Your task to perform on an android device: check the backup settings in the google photos Image 0: 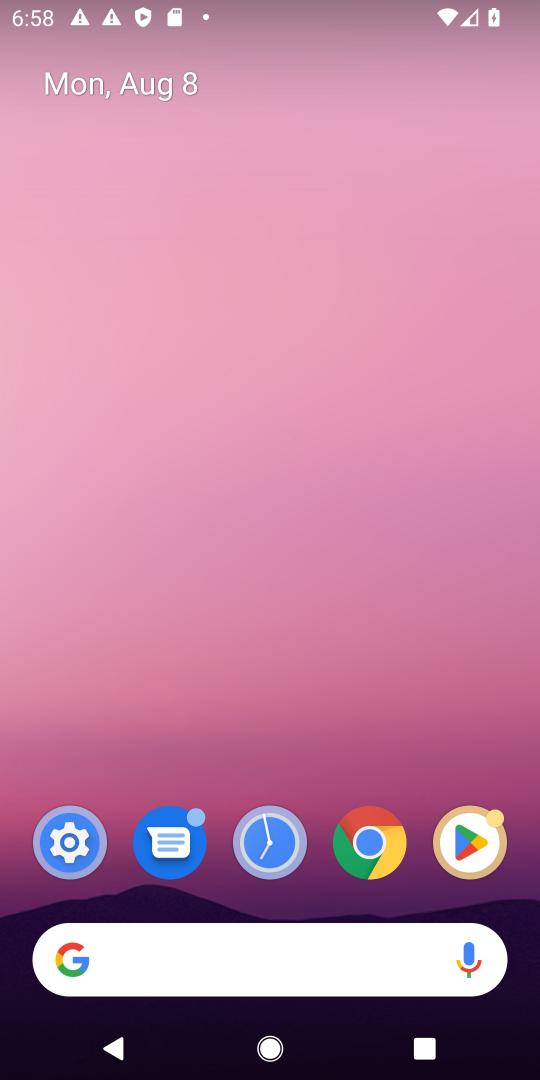
Step 0: drag from (528, 851) to (449, 120)
Your task to perform on an android device: check the backup settings in the google photos Image 1: 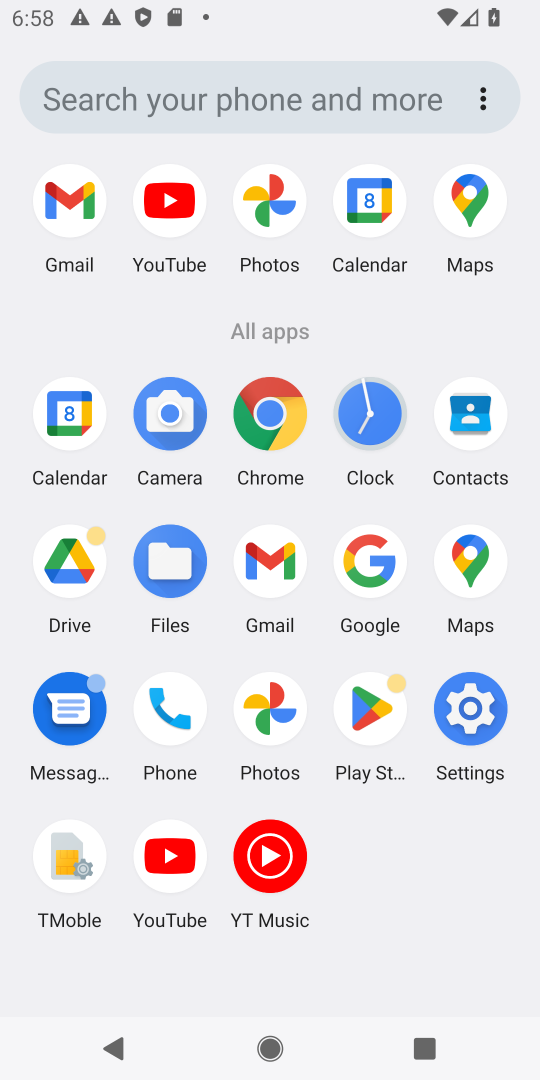
Step 1: click (256, 693)
Your task to perform on an android device: check the backup settings in the google photos Image 2: 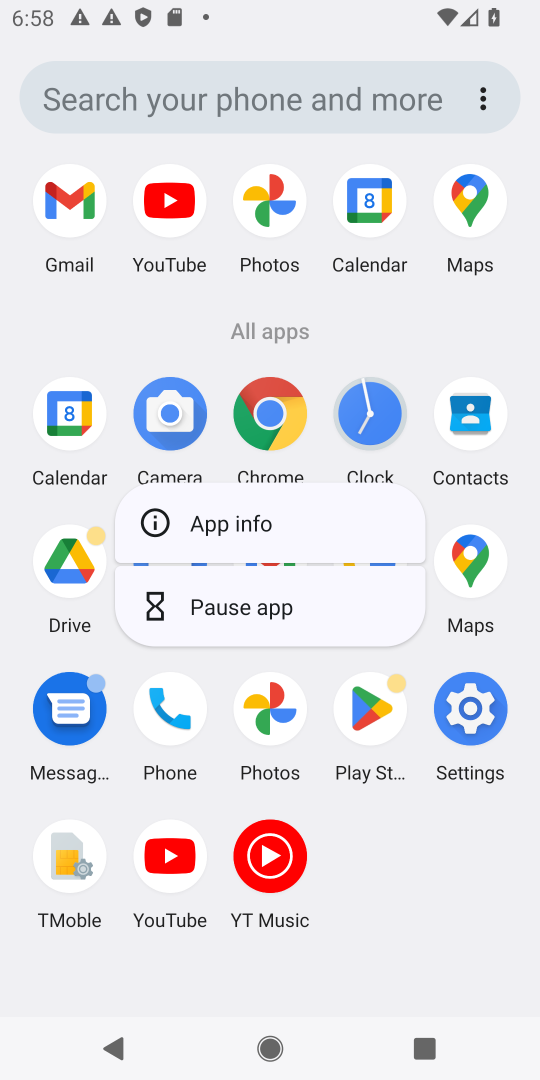
Step 2: click (256, 698)
Your task to perform on an android device: check the backup settings in the google photos Image 3: 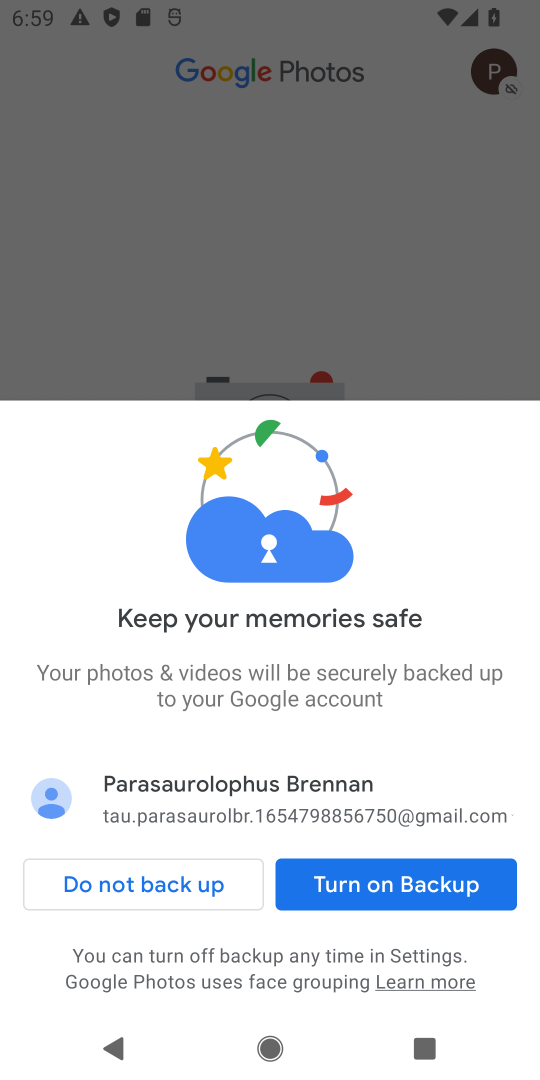
Step 3: press home button
Your task to perform on an android device: check the backup settings in the google photos Image 4: 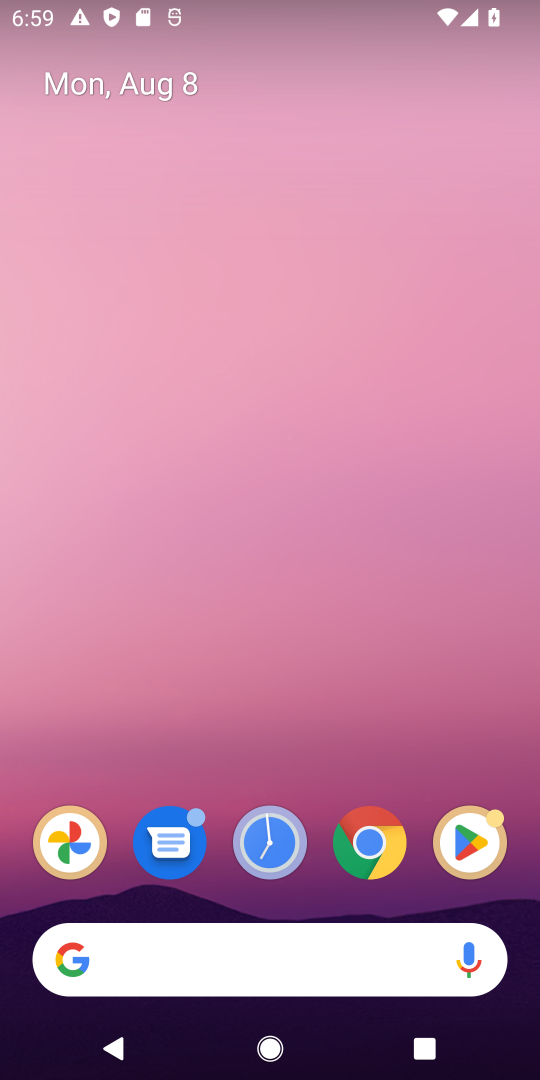
Step 4: drag from (525, 936) to (487, 289)
Your task to perform on an android device: check the backup settings in the google photos Image 5: 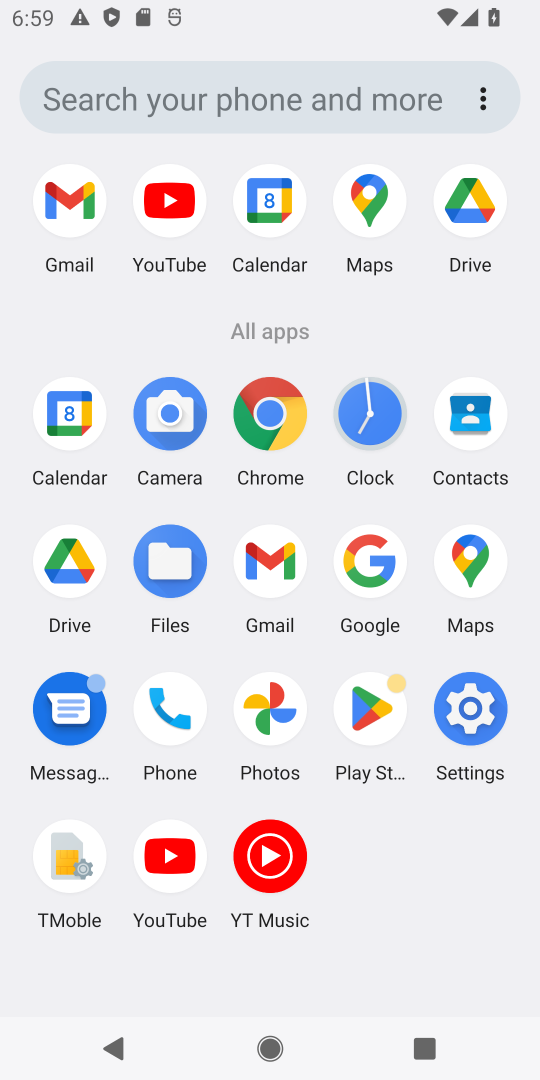
Step 5: click (276, 711)
Your task to perform on an android device: check the backup settings in the google photos Image 6: 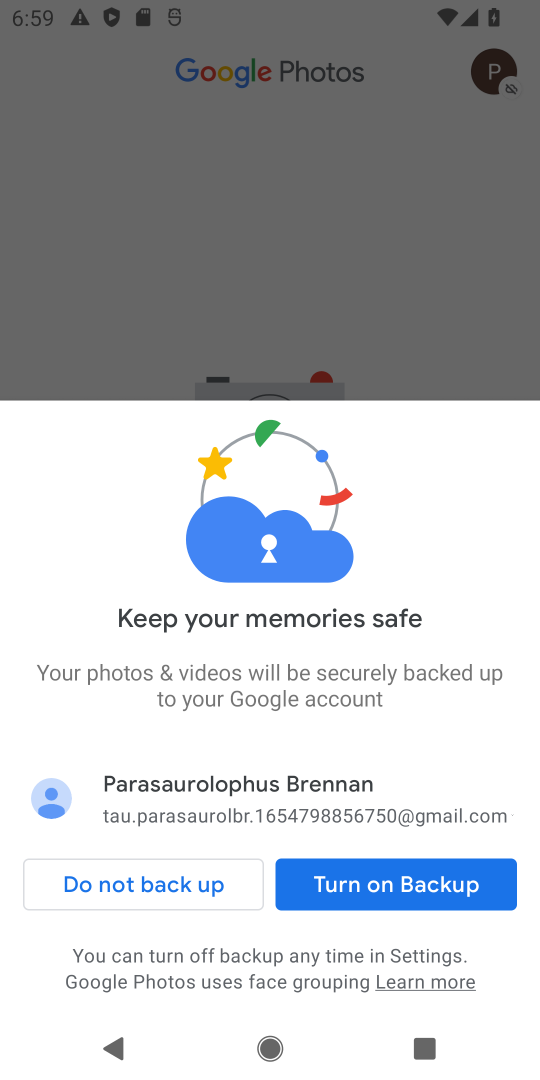
Step 6: click (340, 888)
Your task to perform on an android device: check the backup settings in the google photos Image 7: 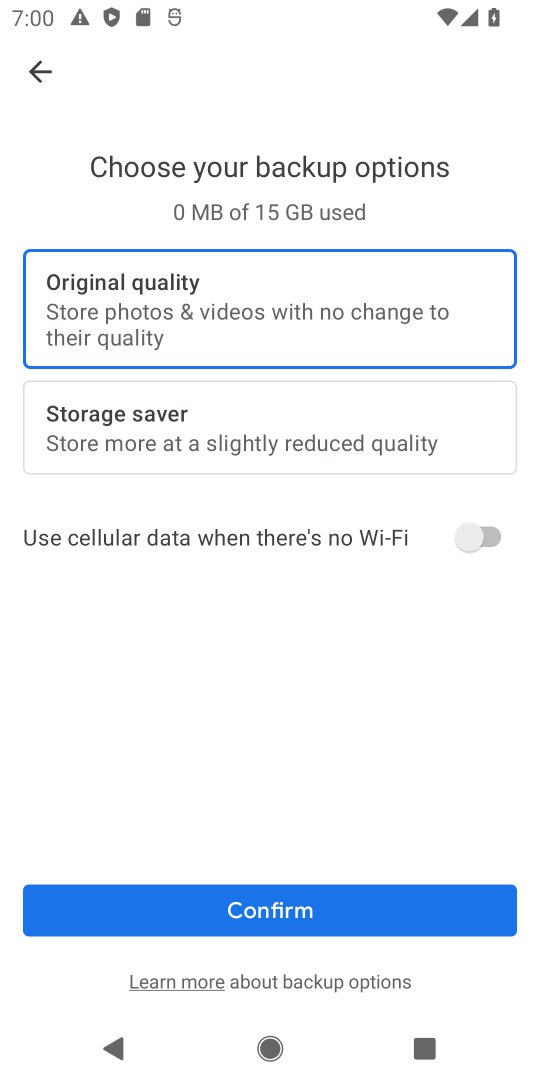
Step 7: click (379, 908)
Your task to perform on an android device: check the backup settings in the google photos Image 8: 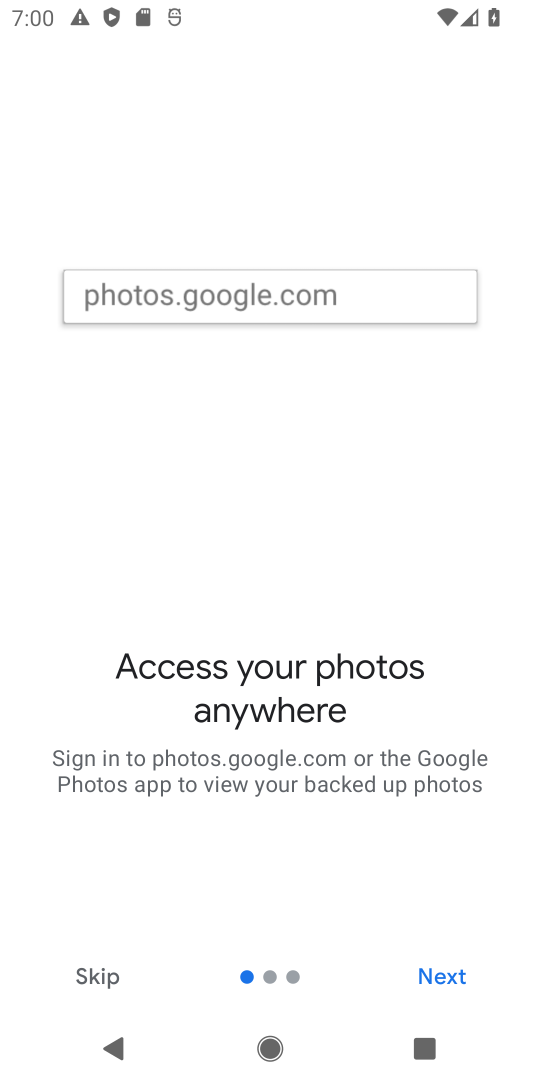
Step 8: click (431, 972)
Your task to perform on an android device: check the backup settings in the google photos Image 9: 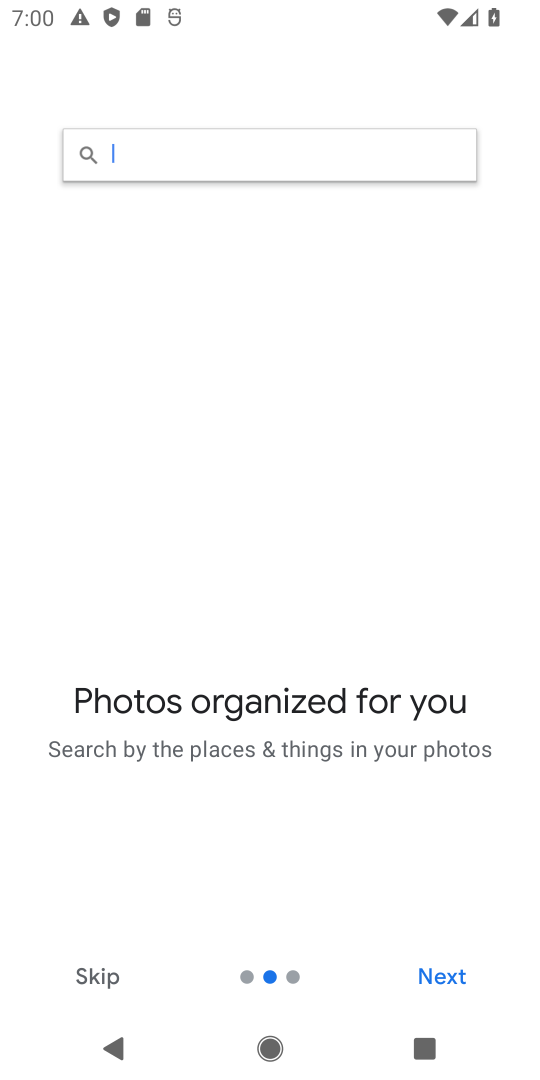
Step 9: click (431, 972)
Your task to perform on an android device: check the backup settings in the google photos Image 10: 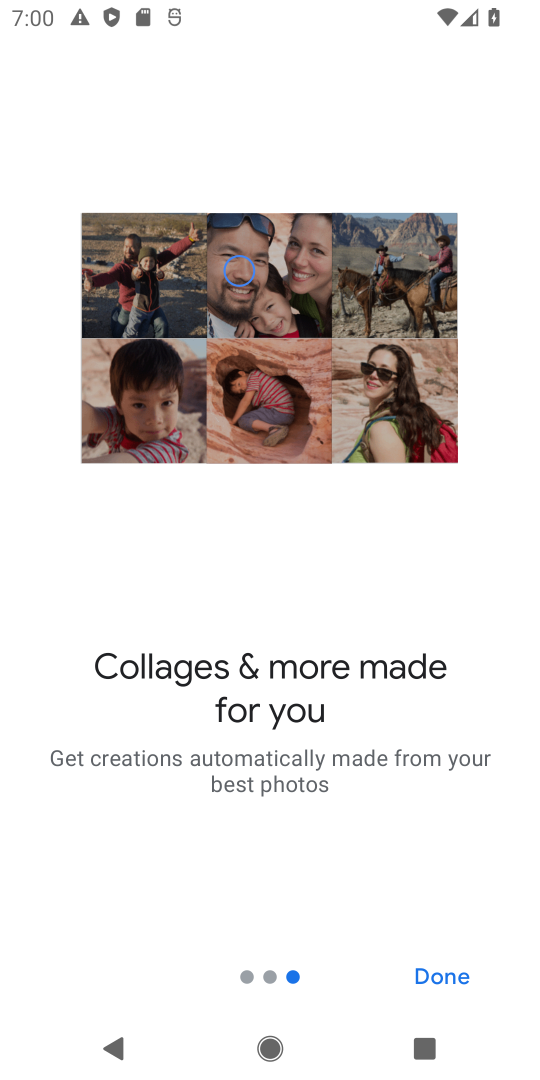
Step 10: click (434, 971)
Your task to perform on an android device: check the backup settings in the google photos Image 11: 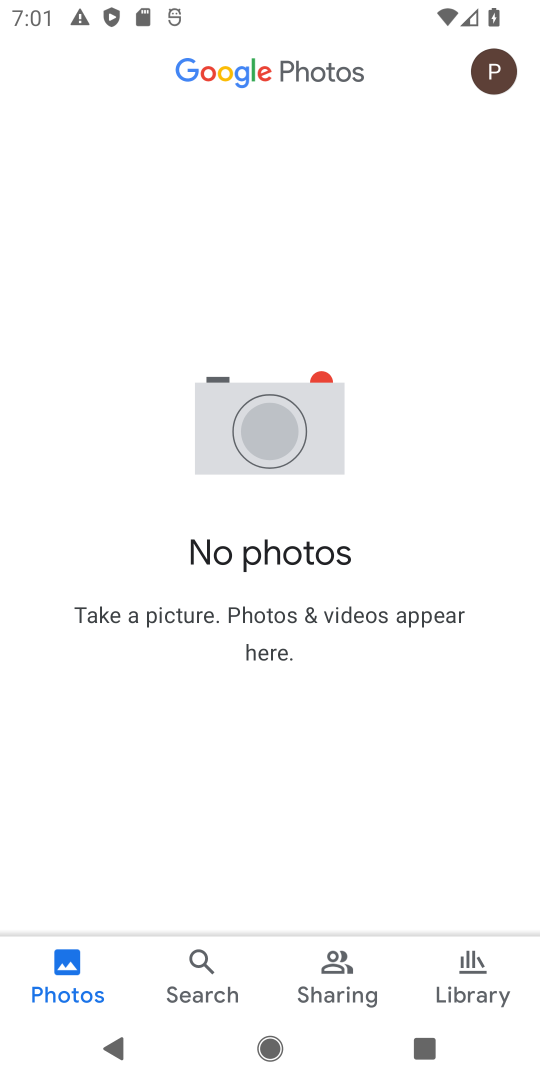
Step 11: drag from (504, 853) to (516, 326)
Your task to perform on an android device: check the backup settings in the google photos Image 12: 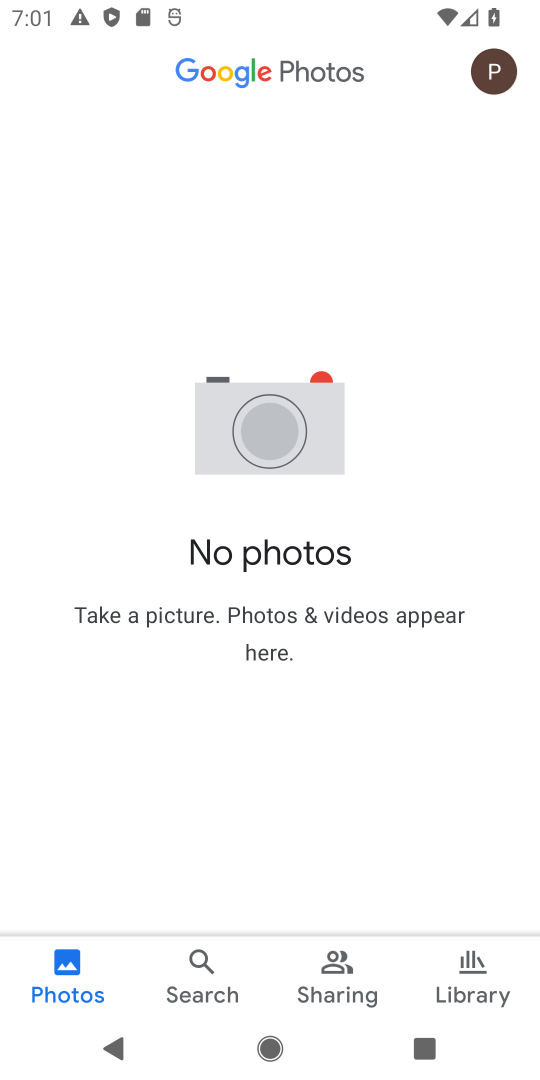
Step 12: press home button
Your task to perform on an android device: check the backup settings in the google photos Image 13: 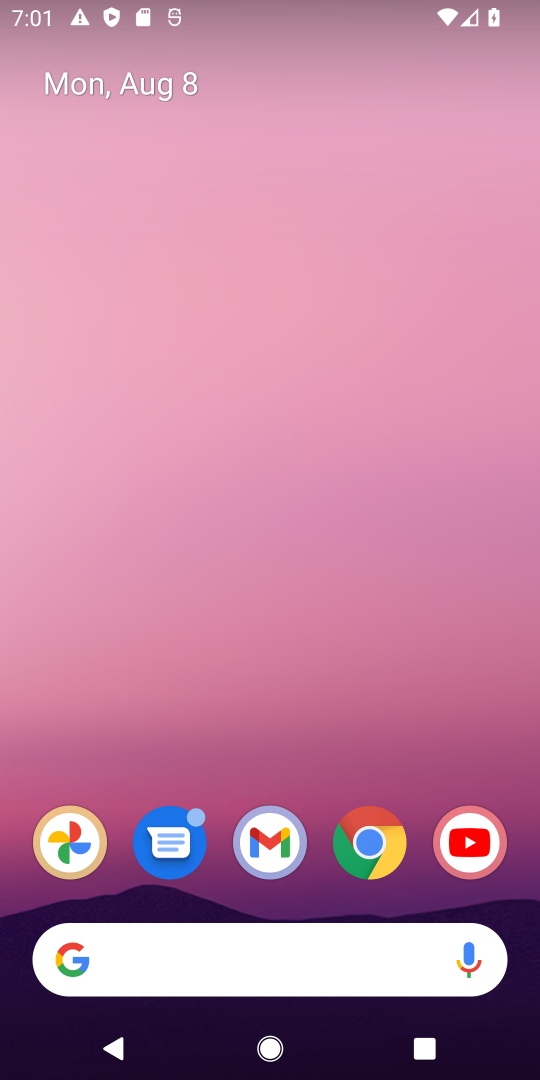
Step 13: drag from (534, 787) to (445, 276)
Your task to perform on an android device: check the backup settings in the google photos Image 14: 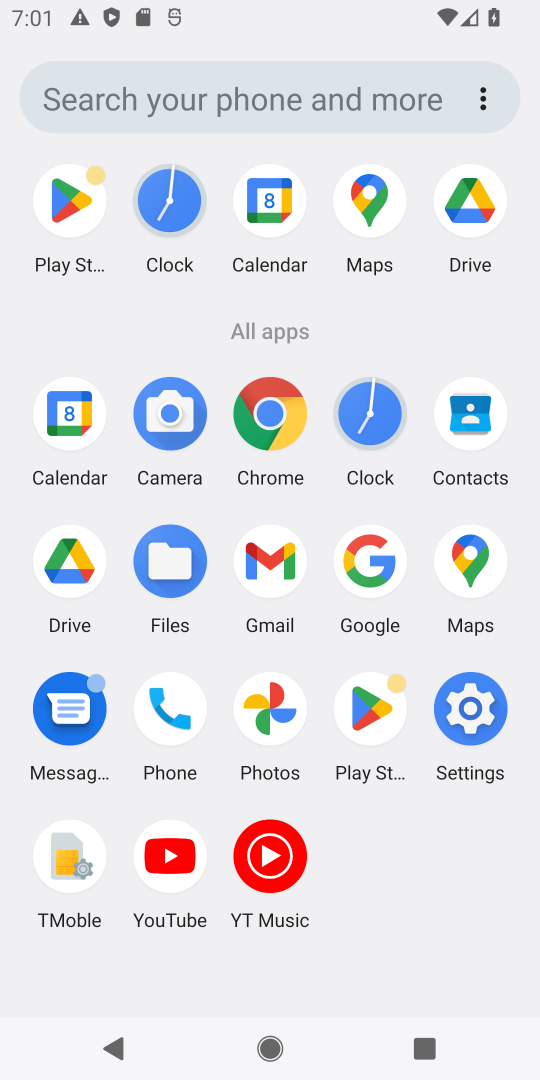
Step 14: click (260, 702)
Your task to perform on an android device: check the backup settings in the google photos Image 15: 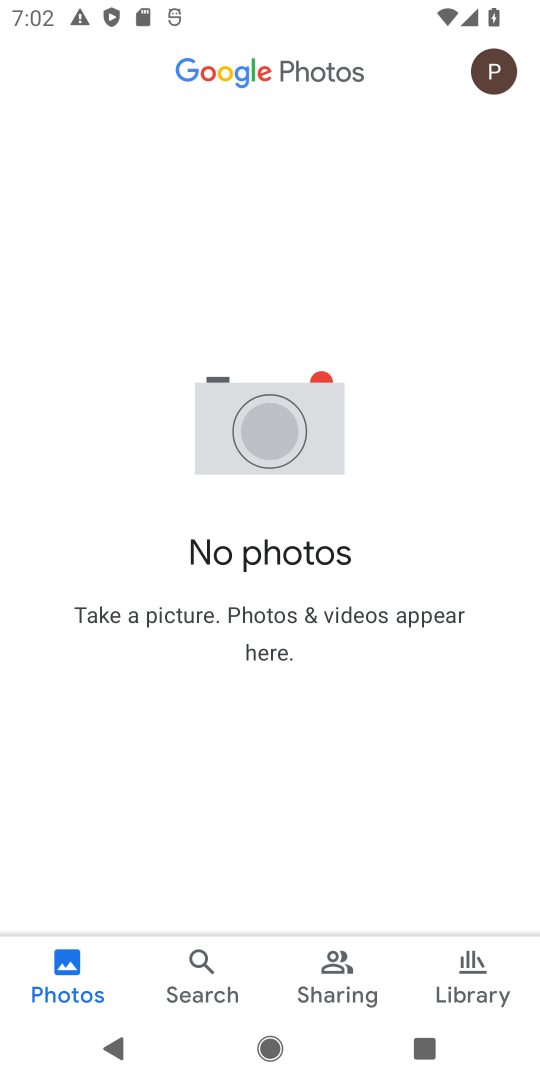
Step 15: task complete